Your task to perform on an android device: change text size in settings app Image 0: 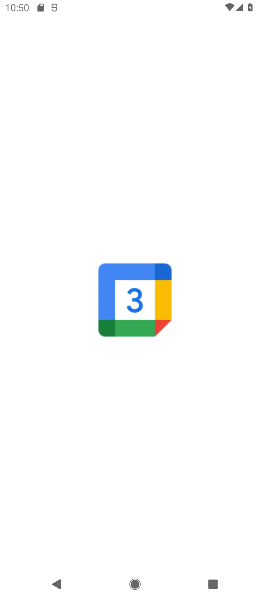
Step 0: press home button
Your task to perform on an android device: change text size in settings app Image 1: 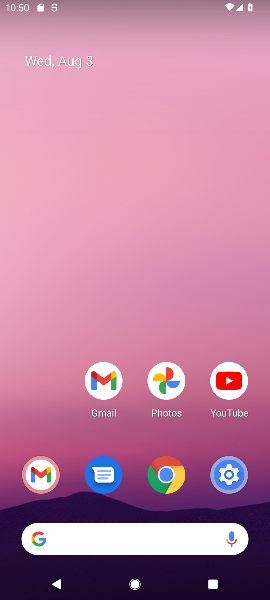
Step 1: drag from (124, 522) to (195, 137)
Your task to perform on an android device: change text size in settings app Image 2: 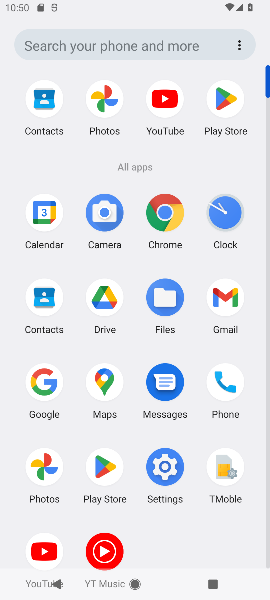
Step 2: click (164, 477)
Your task to perform on an android device: change text size in settings app Image 3: 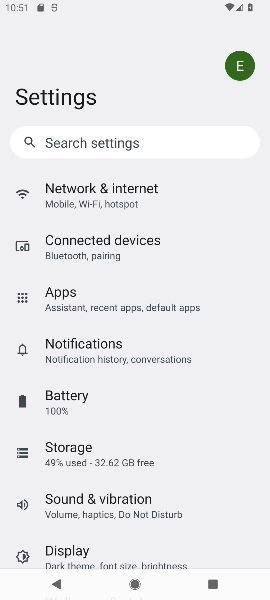
Step 3: drag from (122, 458) to (161, 223)
Your task to perform on an android device: change text size in settings app Image 4: 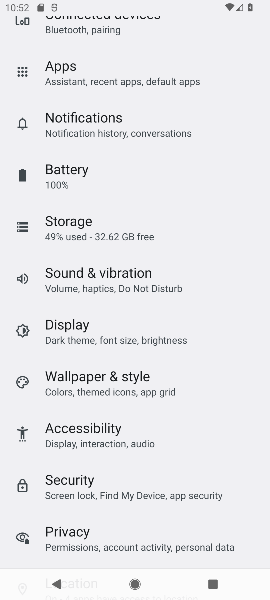
Step 4: click (102, 327)
Your task to perform on an android device: change text size in settings app Image 5: 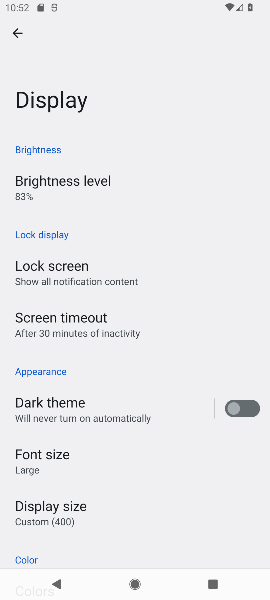
Step 5: click (54, 460)
Your task to perform on an android device: change text size in settings app Image 6: 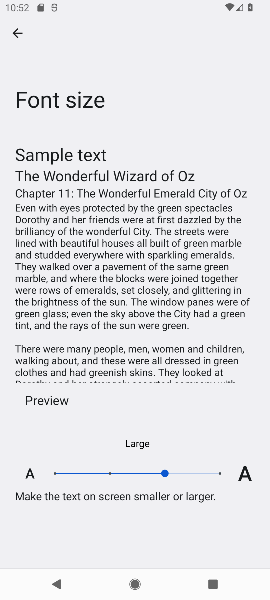
Step 6: task complete